Your task to perform on an android device: find photos in the google photos app Image 0: 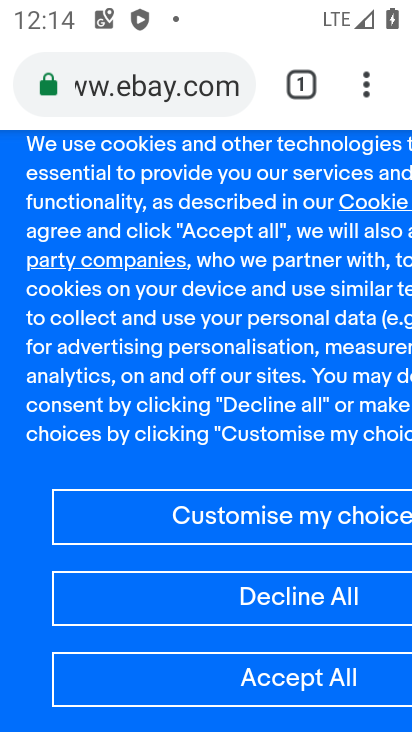
Step 0: press home button
Your task to perform on an android device: find photos in the google photos app Image 1: 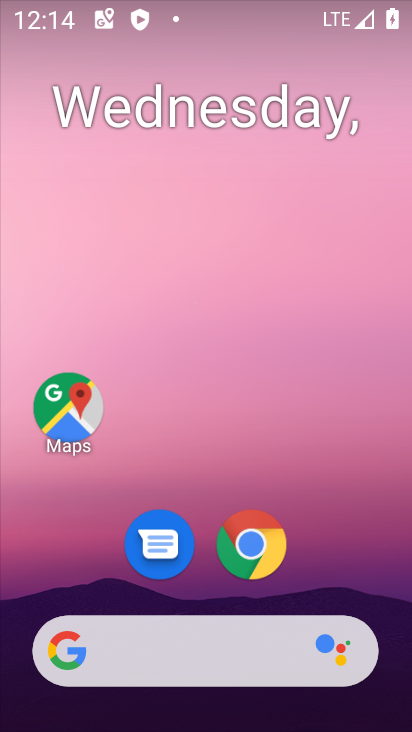
Step 1: drag from (368, 544) to (234, 79)
Your task to perform on an android device: find photos in the google photos app Image 2: 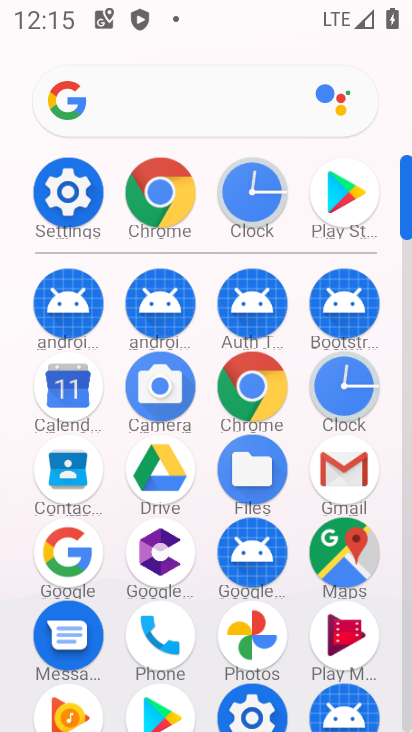
Step 2: click (258, 642)
Your task to perform on an android device: find photos in the google photos app Image 3: 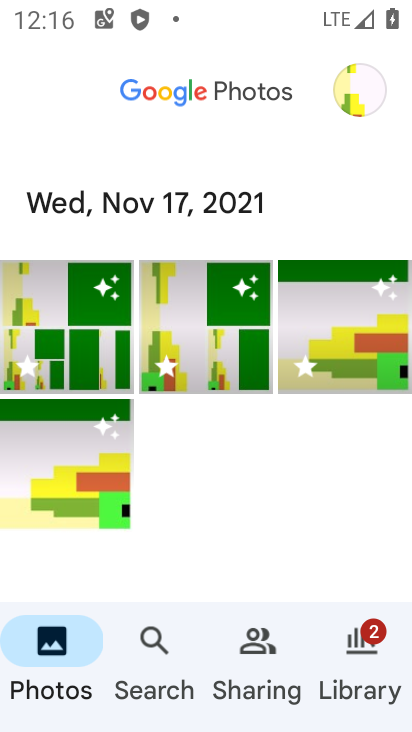
Step 3: task complete